Your task to perform on an android device: What's the weather going to be this weekend? Image 0: 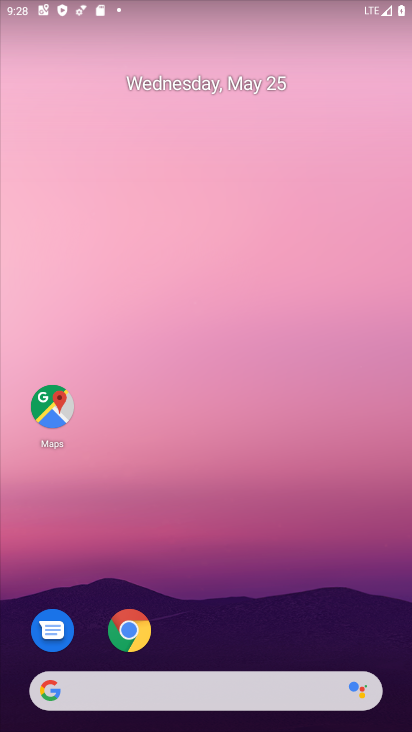
Step 0: click (148, 696)
Your task to perform on an android device: What's the weather going to be this weekend? Image 1: 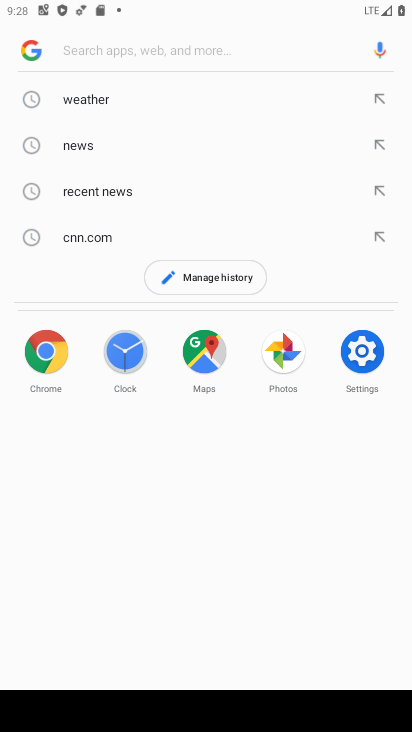
Step 1: click (103, 99)
Your task to perform on an android device: What's the weather going to be this weekend? Image 2: 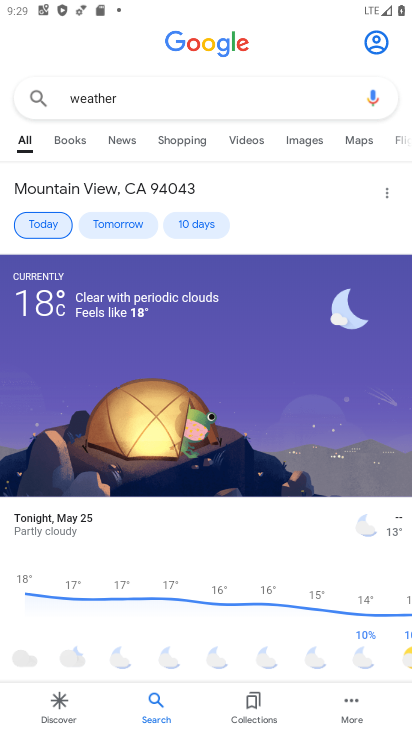
Step 2: click (181, 219)
Your task to perform on an android device: What's the weather going to be this weekend? Image 3: 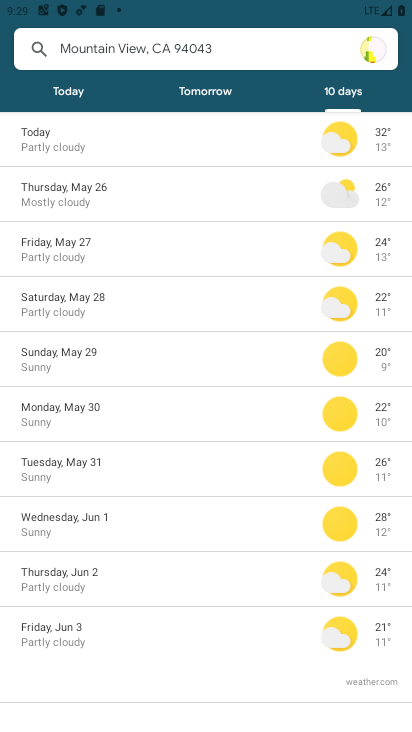
Step 3: task complete